Your task to perform on an android device: What's on my calendar today? Image 0: 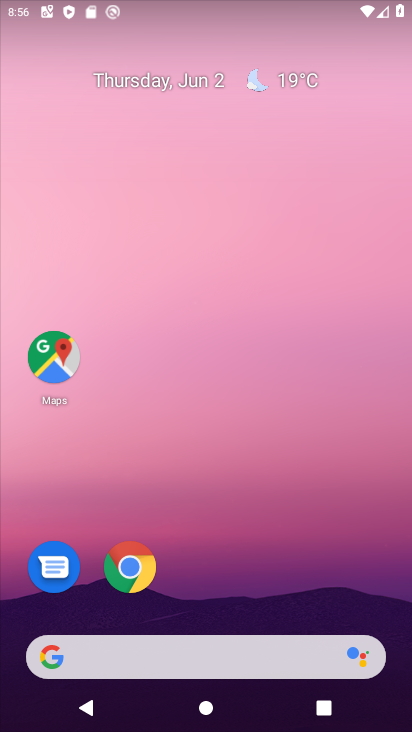
Step 0: press home button
Your task to perform on an android device: What's on my calendar today? Image 1: 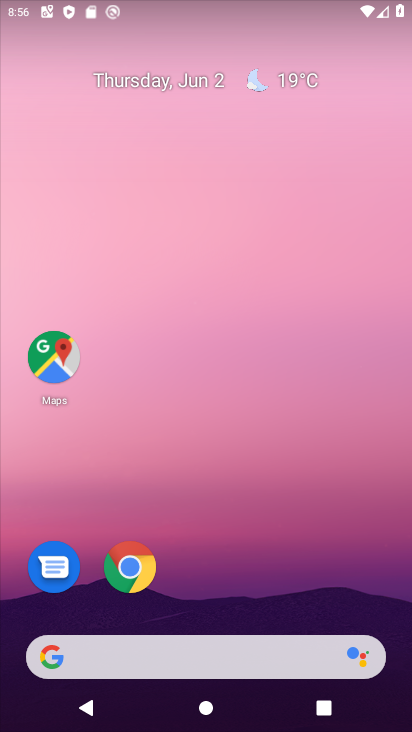
Step 1: press home button
Your task to perform on an android device: What's on my calendar today? Image 2: 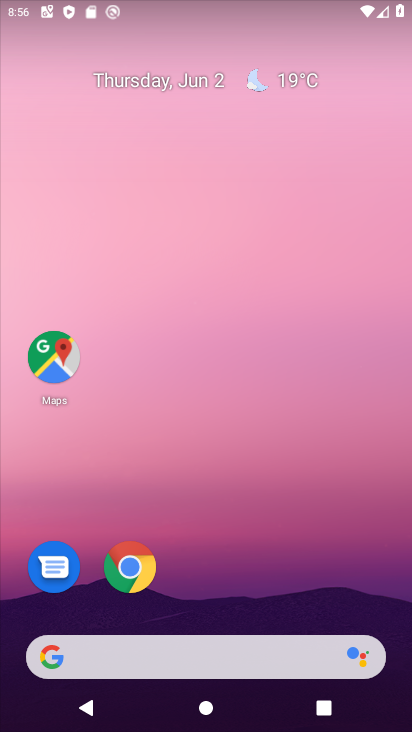
Step 2: drag from (227, 547) to (295, 53)
Your task to perform on an android device: What's on my calendar today? Image 3: 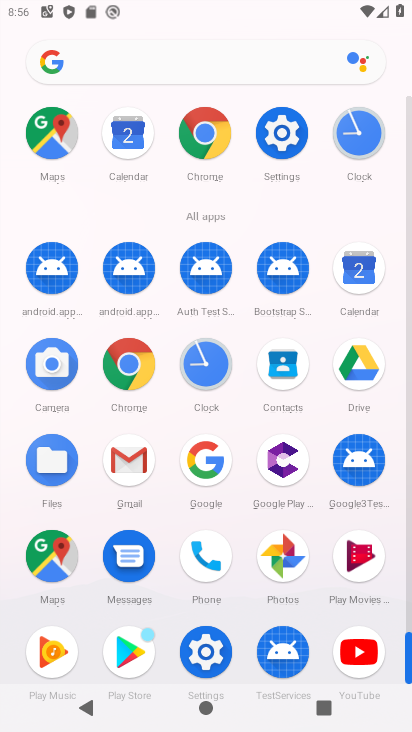
Step 3: click (362, 260)
Your task to perform on an android device: What's on my calendar today? Image 4: 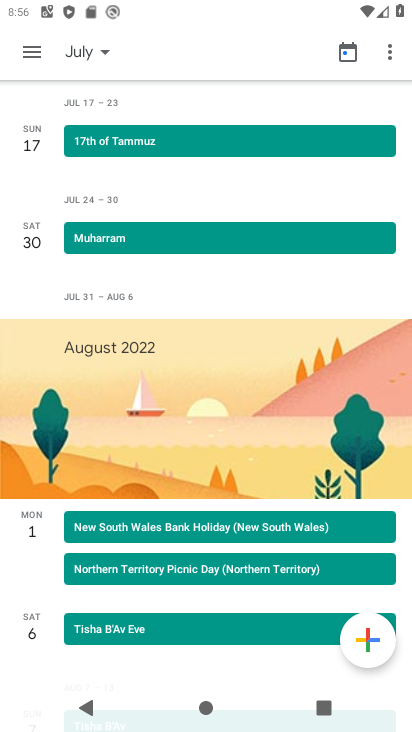
Step 4: click (34, 49)
Your task to perform on an android device: What's on my calendar today? Image 5: 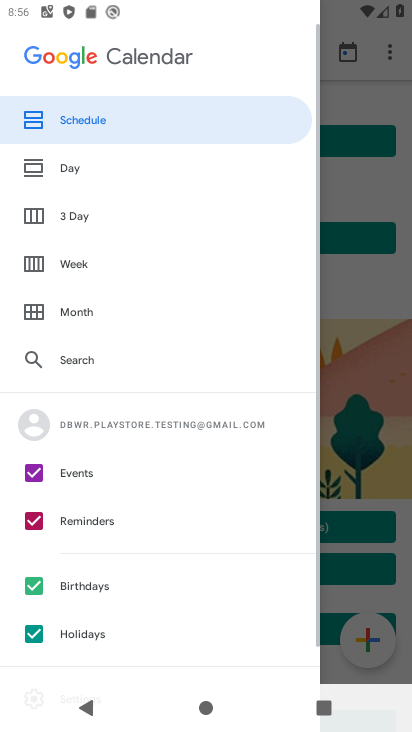
Step 5: click (76, 123)
Your task to perform on an android device: What's on my calendar today? Image 6: 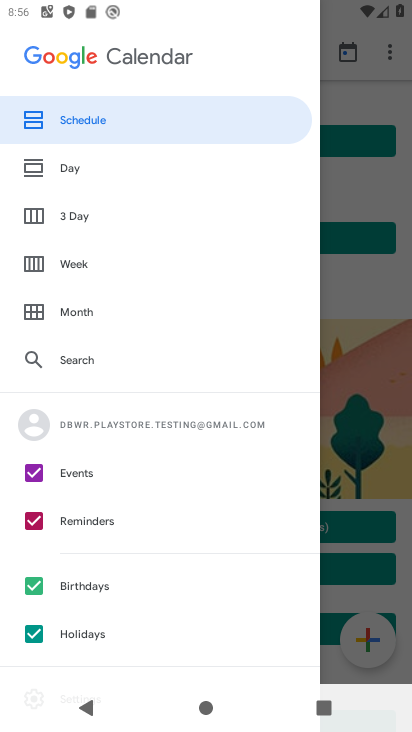
Step 6: press back button
Your task to perform on an android device: What's on my calendar today? Image 7: 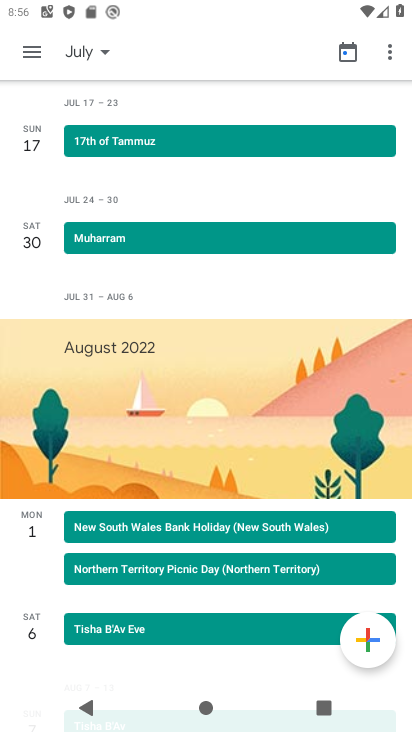
Step 7: click (97, 50)
Your task to perform on an android device: What's on my calendar today? Image 8: 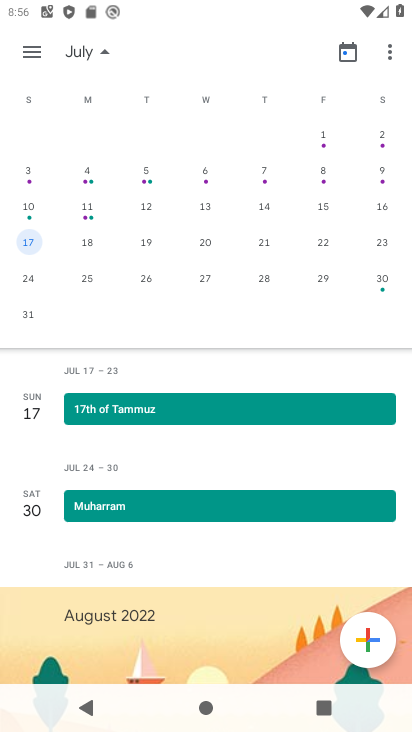
Step 8: drag from (106, 250) to (409, 253)
Your task to perform on an android device: What's on my calendar today? Image 9: 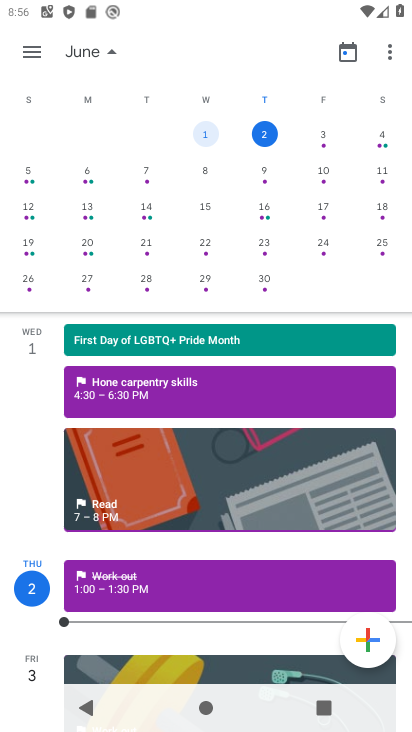
Step 9: click (268, 128)
Your task to perform on an android device: What's on my calendar today? Image 10: 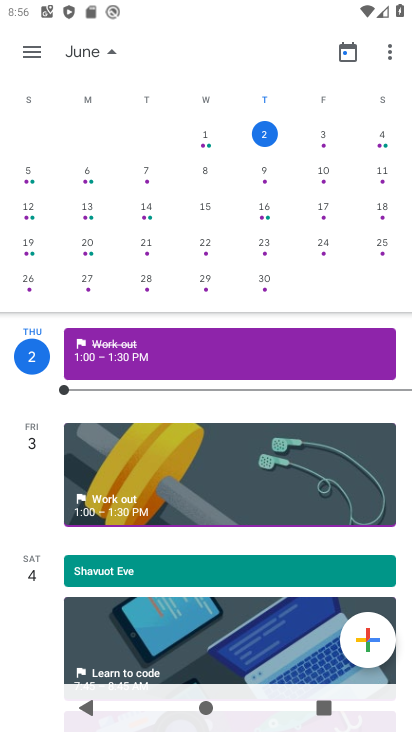
Step 10: click (110, 41)
Your task to perform on an android device: What's on my calendar today? Image 11: 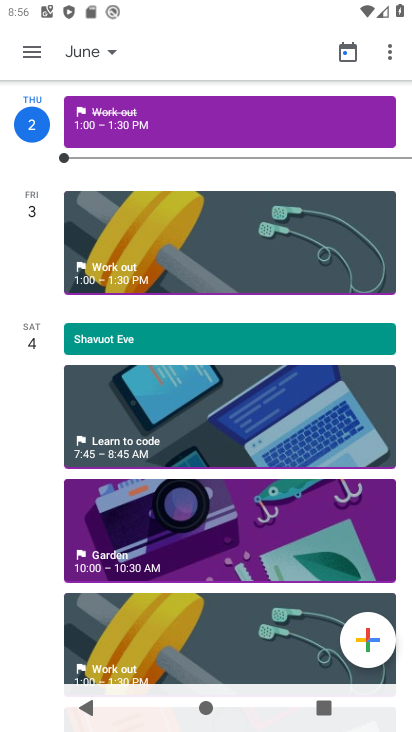
Step 11: click (44, 136)
Your task to perform on an android device: What's on my calendar today? Image 12: 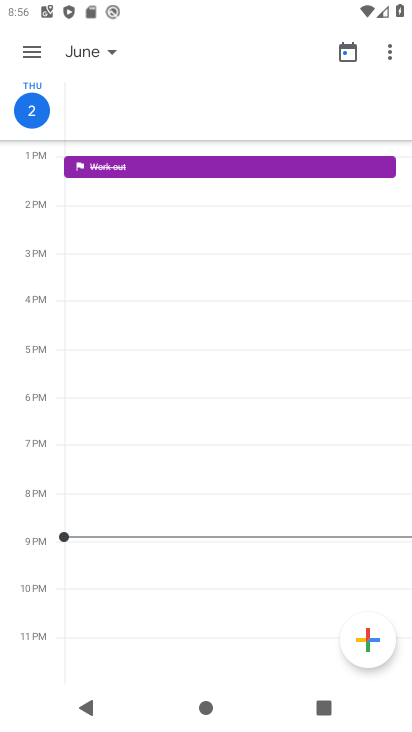
Step 12: drag from (51, 188) to (59, 611)
Your task to perform on an android device: What's on my calendar today? Image 13: 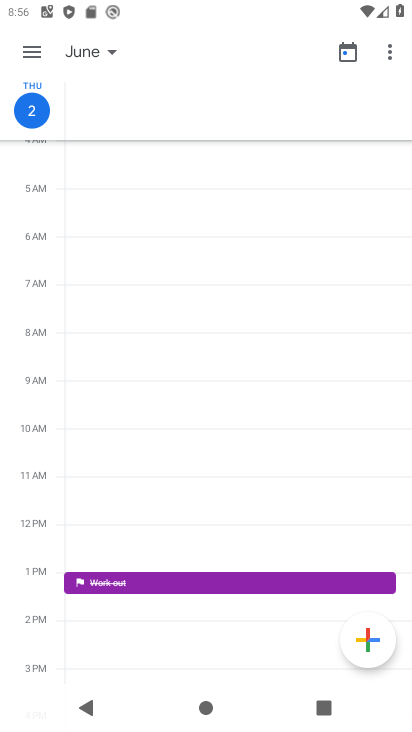
Step 13: drag from (59, 611) to (109, 304)
Your task to perform on an android device: What's on my calendar today? Image 14: 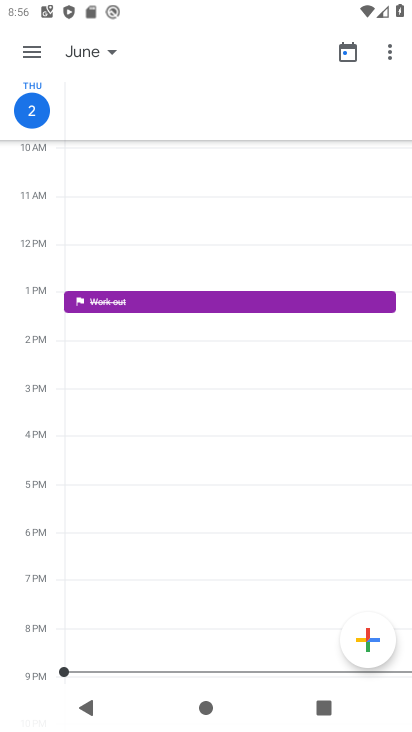
Step 14: click (121, 244)
Your task to perform on an android device: What's on my calendar today? Image 15: 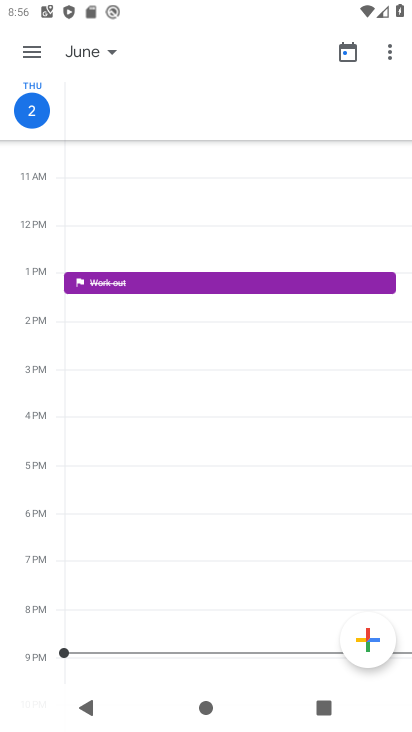
Step 15: click (39, 582)
Your task to perform on an android device: What's on my calendar today? Image 16: 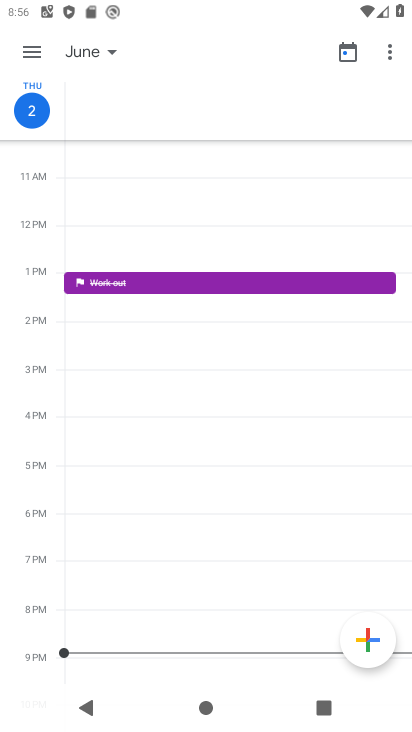
Step 16: task complete